Your task to perform on an android device: Go to privacy settings Image 0: 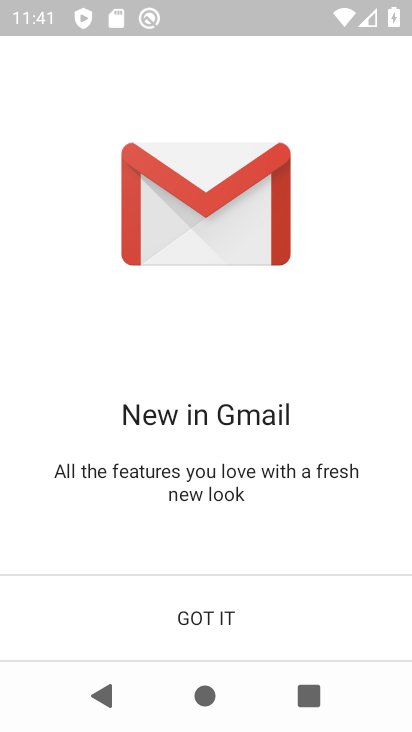
Step 0: press home button
Your task to perform on an android device: Go to privacy settings Image 1: 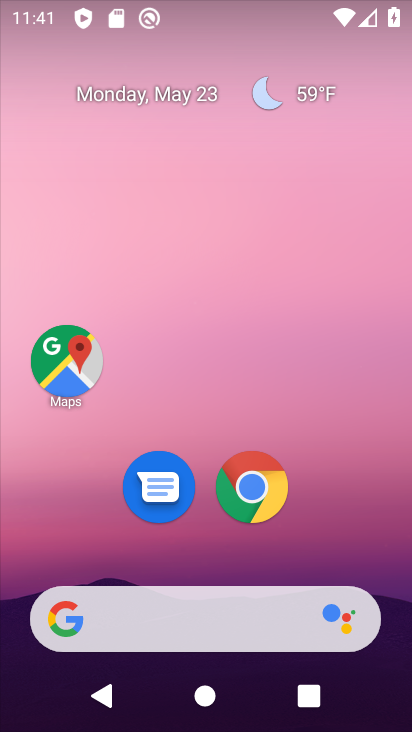
Step 1: drag from (195, 560) to (261, 70)
Your task to perform on an android device: Go to privacy settings Image 2: 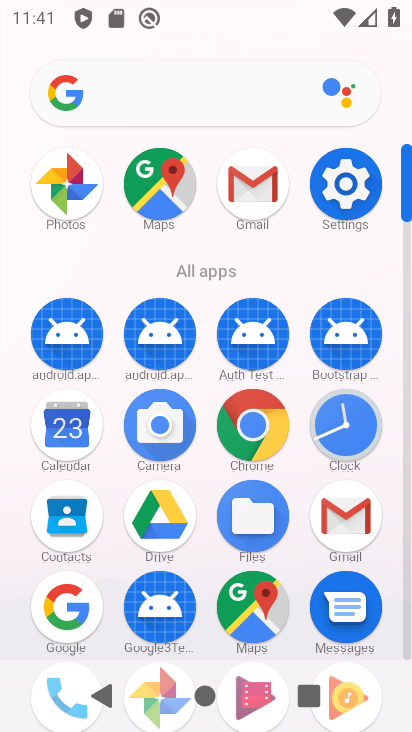
Step 2: click (335, 164)
Your task to perform on an android device: Go to privacy settings Image 3: 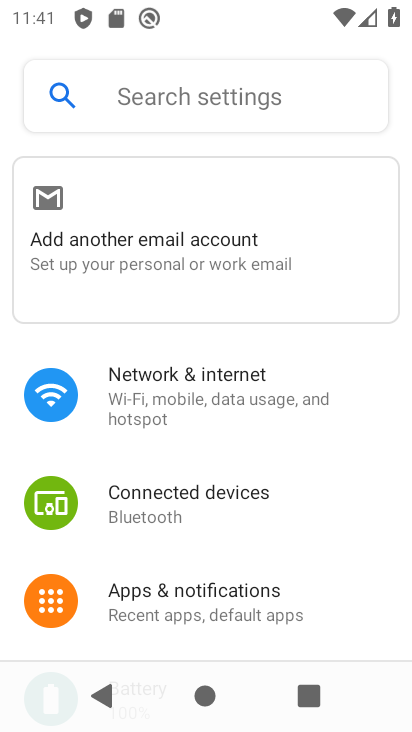
Step 3: drag from (220, 582) to (242, 122)
Your task to perform on an android device: Go to privacy settings Image 4: 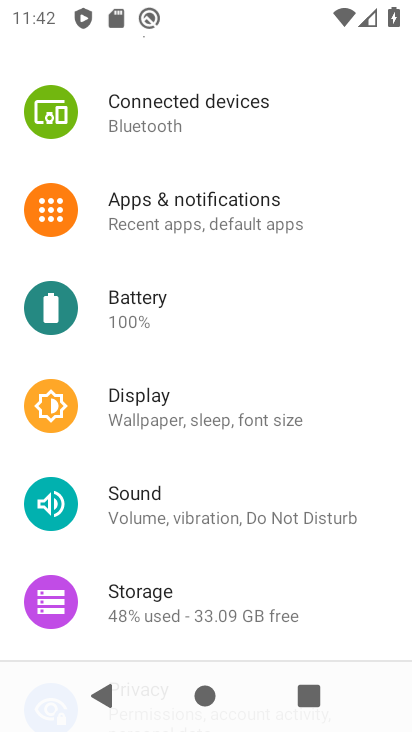
Step 4: drag from (157, 587) to (230, 196)
Your task to perform on an android device: Go to privacy settings Image 5: 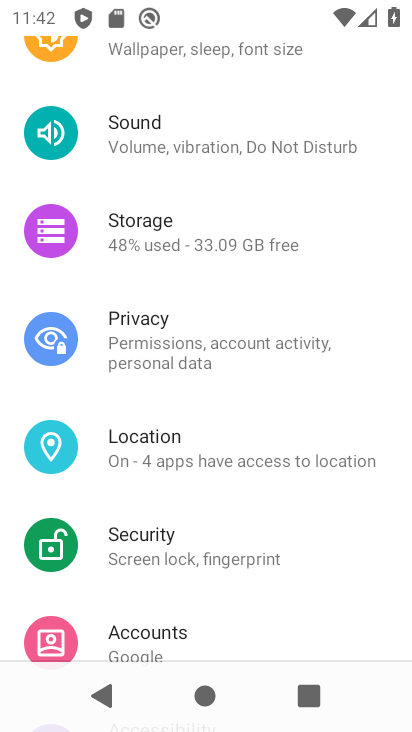
Step 5: click (233, 331)
Your task to perform on an android device: Go to privacy settings Image 6: 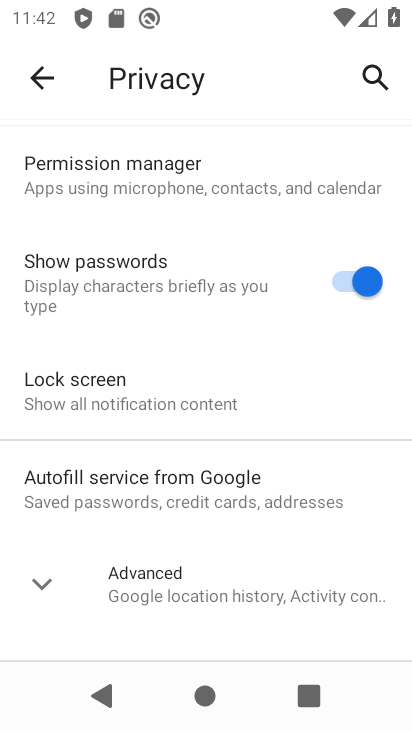
Step 6: task complete